Your task to perform on an android device: Play the last video I watched on Youtube Image 0: 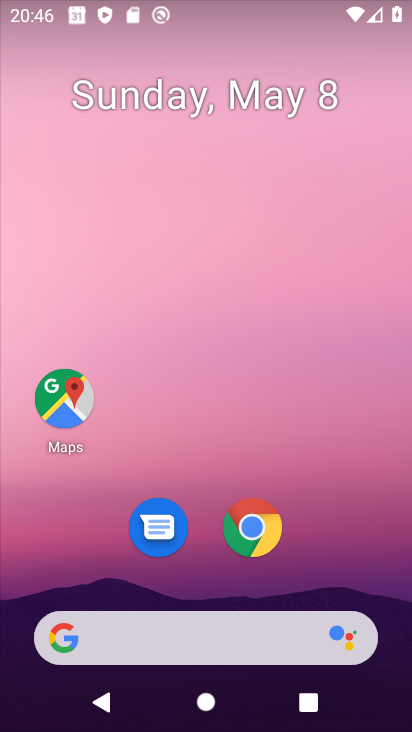
Step 0: drag from (203, 548) to (280, 14)
Your task to perform on an android device: Play the last video I watched on Youtube Image 1: 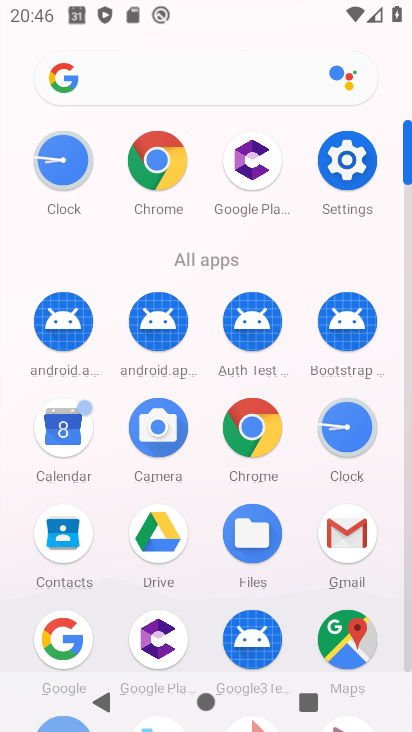
Step 1: drag from (300, 636) to (330, 110)
Your task to perform on an android device: Play the last video I watched on Youtube Image 2: 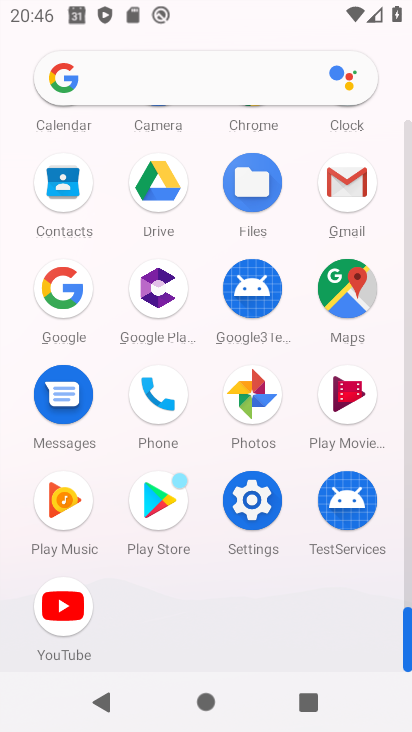
Step 2: click (61, 580)
Your task to perform on an android device: Play the last video I watched on Youtube Image 3: 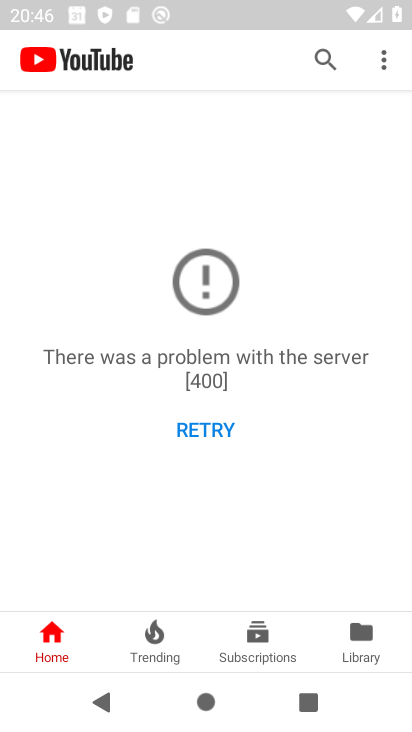
Step 3: click (318, 53)
Your task to perform on an android device: Play the last video I watched on Youtube Image 4: 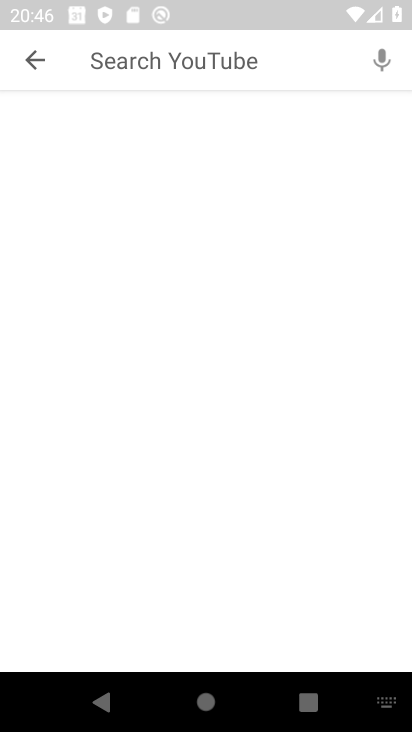
Step 4: task complete